Your task to perform on an android device: What's on my calendar tomorrow? Image 0: 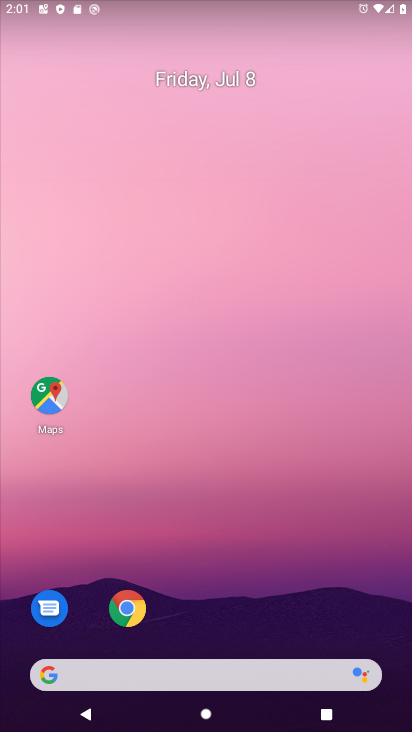
Step 0: click (180, 82)
Your task to perform on an android device: What's on my calendar tomorrow? Image 1: 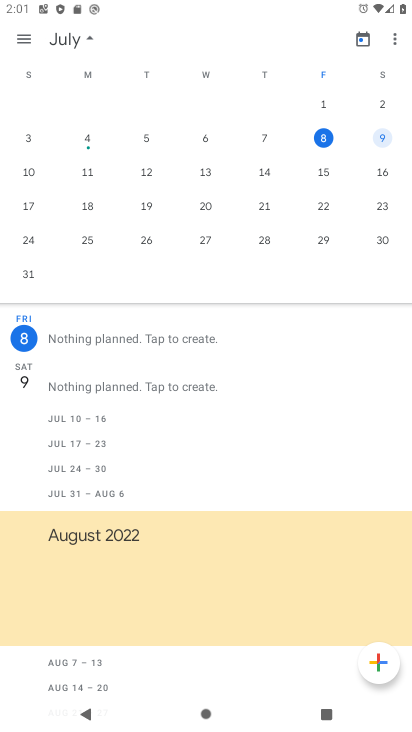
Step 1: click (384, 142)
Your task to perform on an android device: What's on my calendar tomorrow? Image 2: 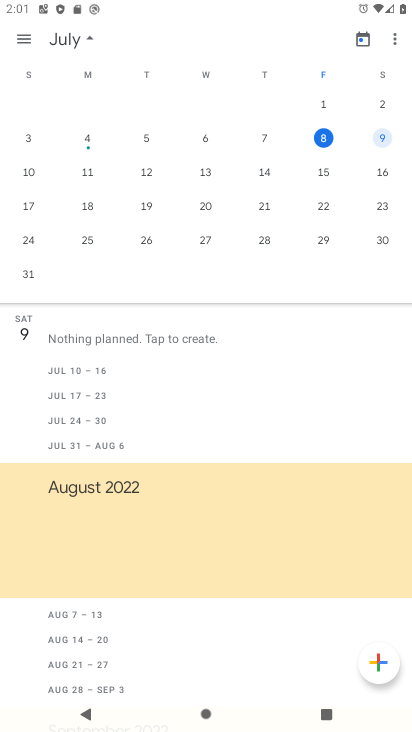
Step 2: task complete